Your task to perform on an android device: Do I have any events today? Image 0: 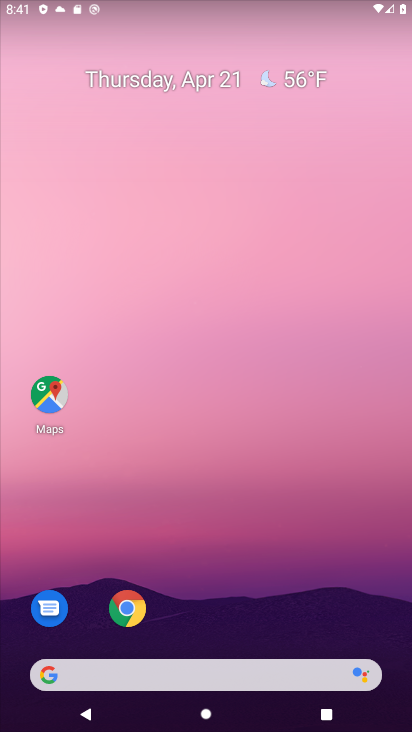
Step 0: drag from (280, 555) to (274, 116)
Your task to perform on an android device: Do I have any events today? Image 1: 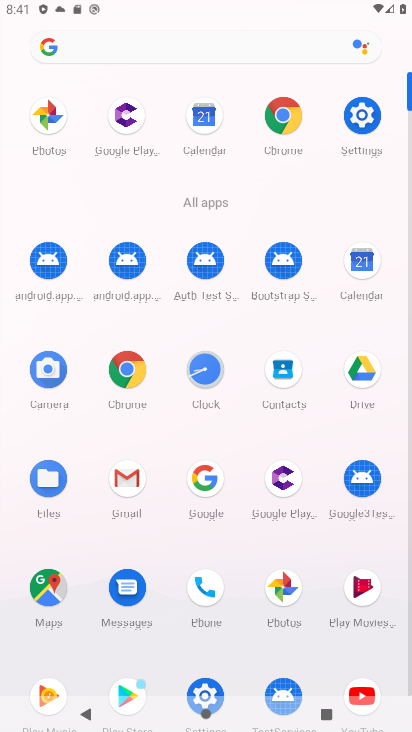
Step 1: click (364, 264)
Your task to perform on an android device: Do I have any events today? Image 2: 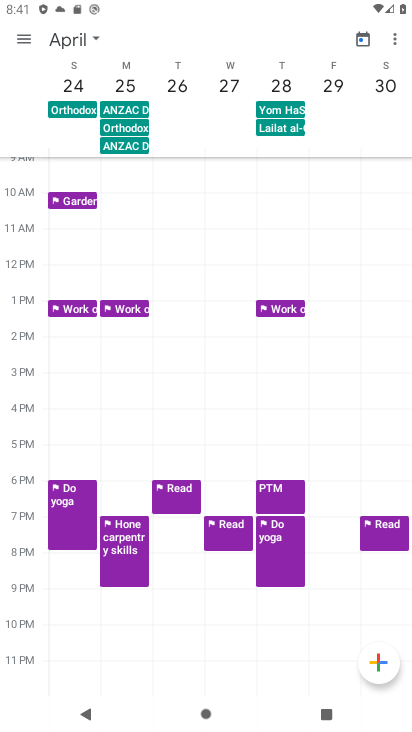
Step 2: drag from (61, 246) to (381, 235)
Your task to perform on an android device: Do I have any events today? Image 3: 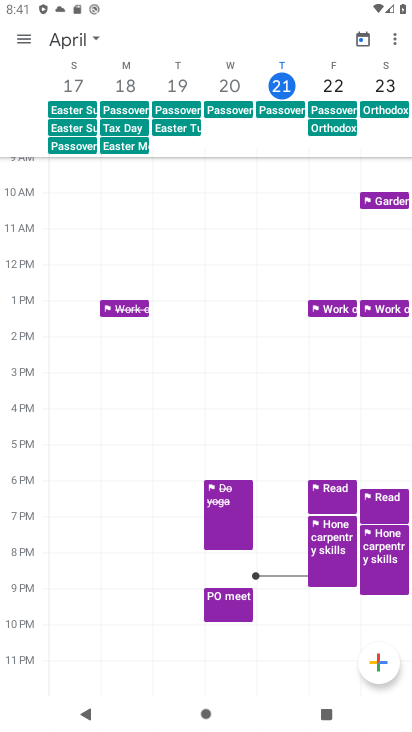
Step 3: drag from (291, 515) to (294, 167)
Your task to perform on an android device: Do I have any events today? Image 4: 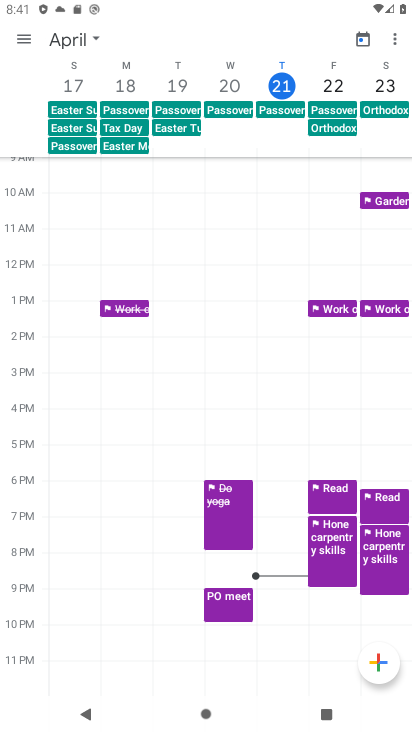
Step 4: click (275, 83)
Your task to perform on an android device: Do I have any events today? Image 5: 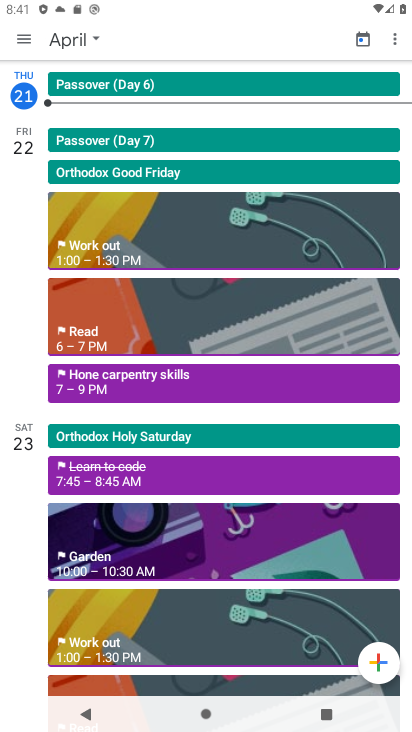
Step 5: task complete